Your task to perform on an android device: allow notifications from all sites in the chrome app Image 0: 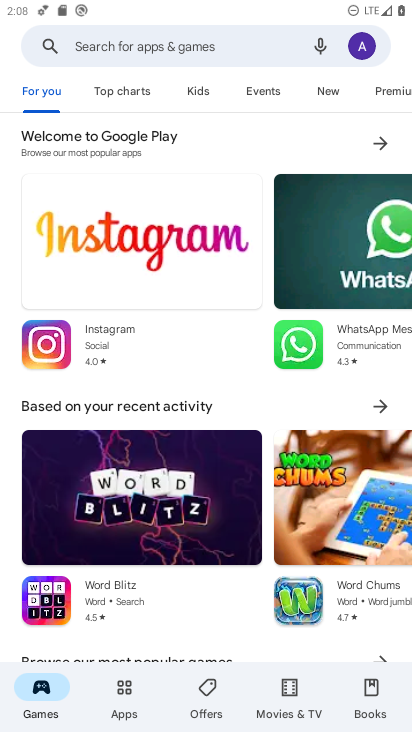
Step 0: press home button
Your task to perform on an android device: allow notifications from all sites in the chrome app Image 1: 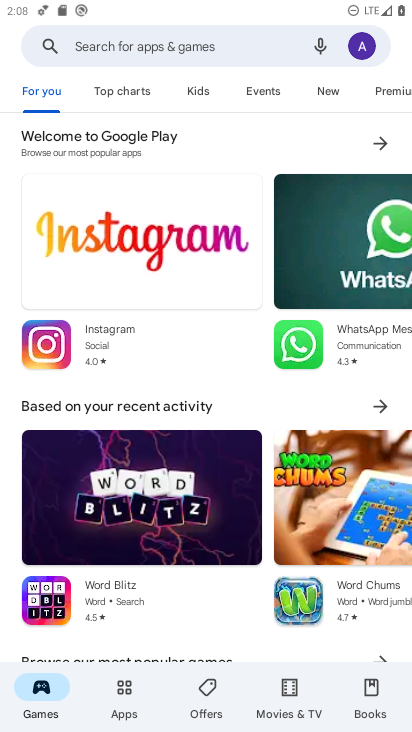
Step 1: drag from (348, 709) to (226, 16)
Your task to perform on an android device: allow notifications from all sites in the chrome app Image 2: 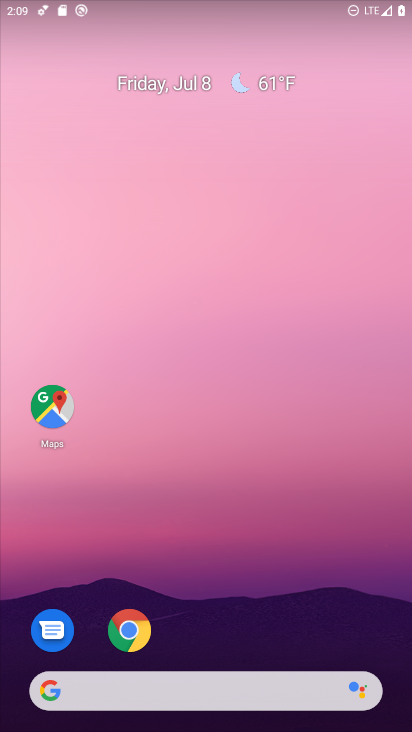
Step 2: drag from (382, 625) to (261, 2)
Your task to perform on an android device: allow notifications from all sites in the chrome app Image 3: 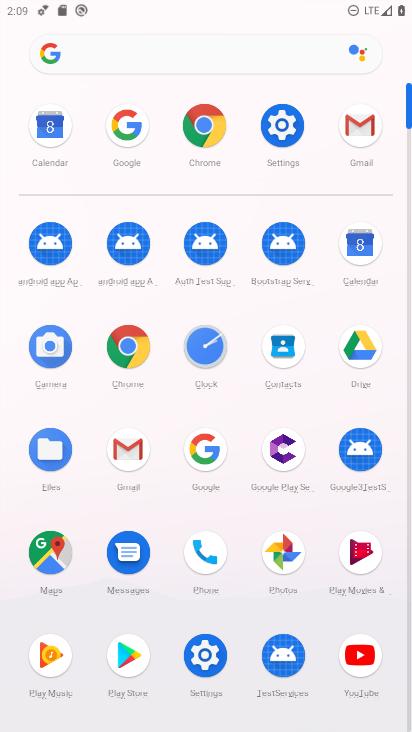
Step 3: click (192, 132)
Your task to perform on an android device: allow notifications from all sites in the chrome app Image 4: 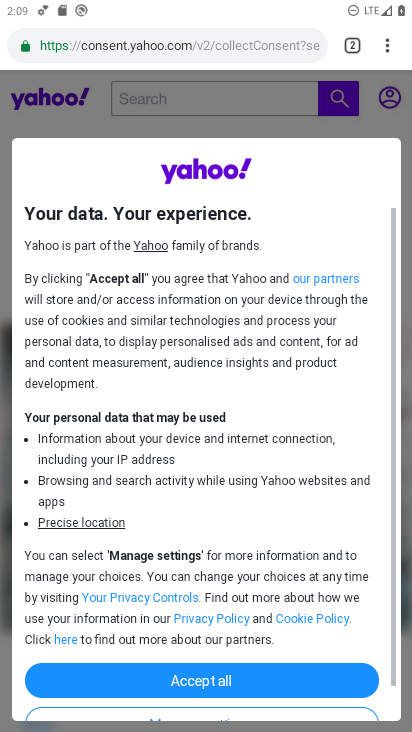
Step 4: press back button
Your task to perform on an android device: allow notifications from all sites in the chrome app Image 5: 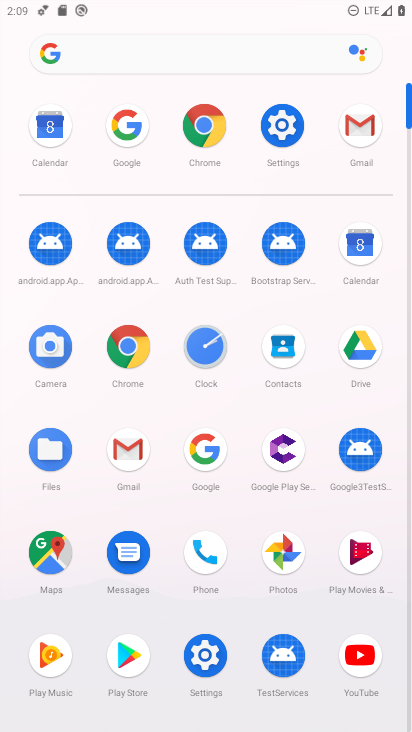
Step 5: click (223, 127)
Your task to perform on an android device: allow notifications from all sites in the chrome app Image 6: 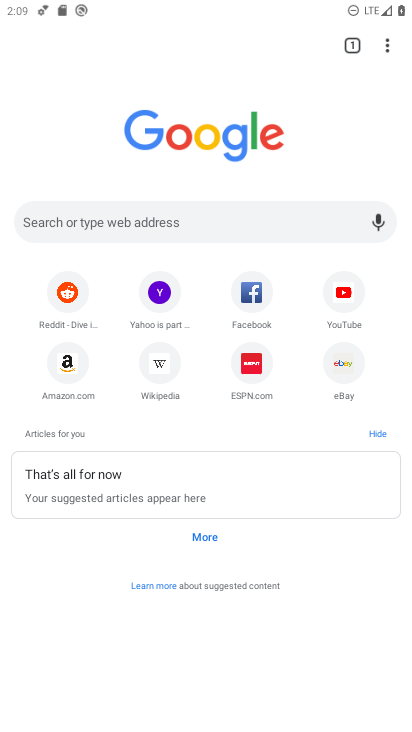
Step 6: click (378, 38)
Your task to perform on an android device: allow notifications from all sites in the chrome app Image 7: 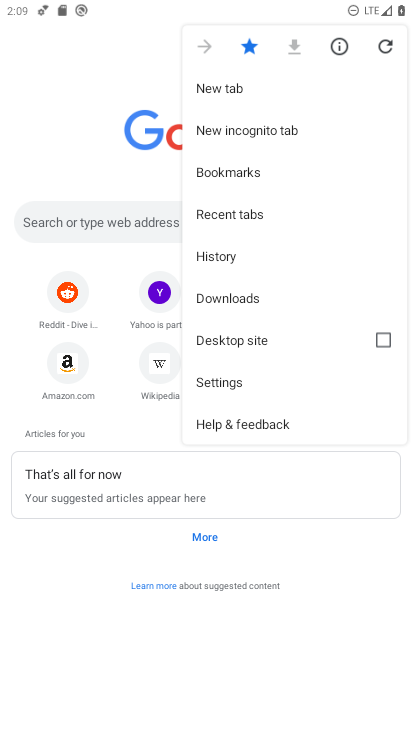
Step 7: click (231, 374)
Your task to perform on an android device: allow notifications from all sites in the chrome app Image 8: 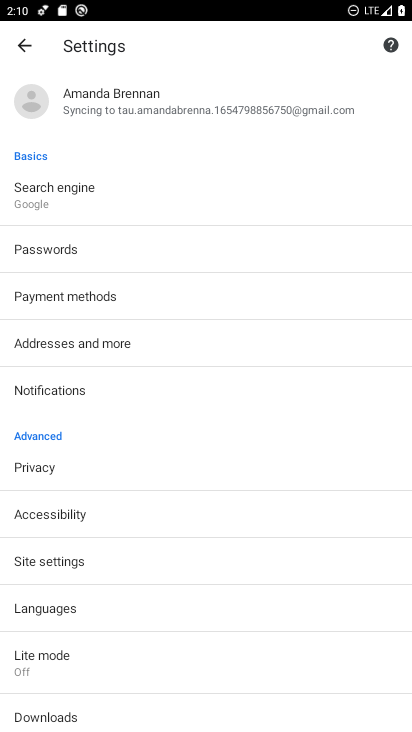
Step 8: click (62, 385)
Your task to perform on an android device: allow notifications from all sites in the chrome app Image 9: 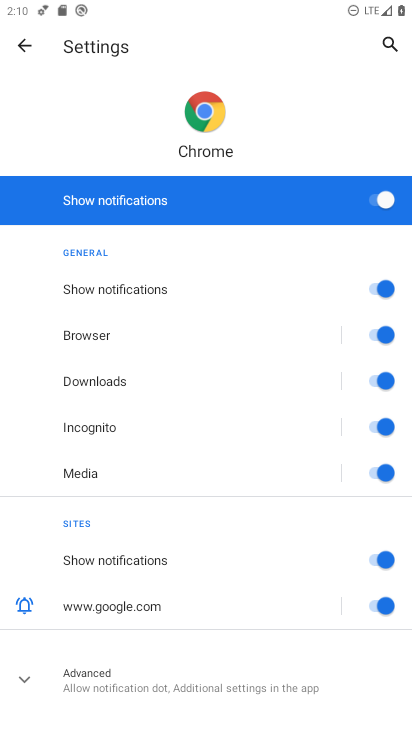
Step 9: task complete